Your task to perform on an android device: toggle priority inbox in the gmail app Image 0: 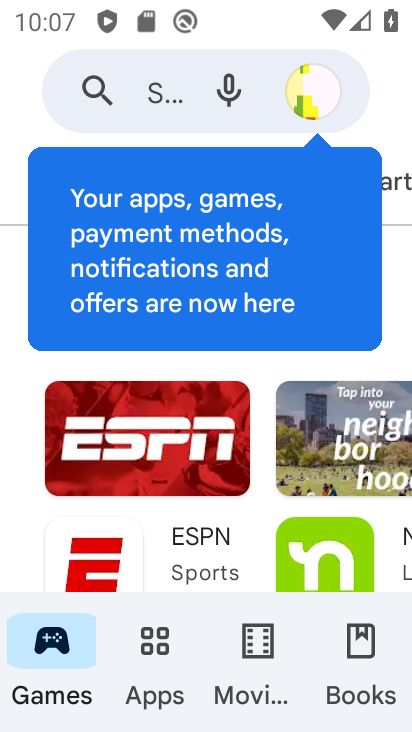
Step 0: press home button
Your task to perform on an android device: toggle priority inbox in the gmail app Image 1: 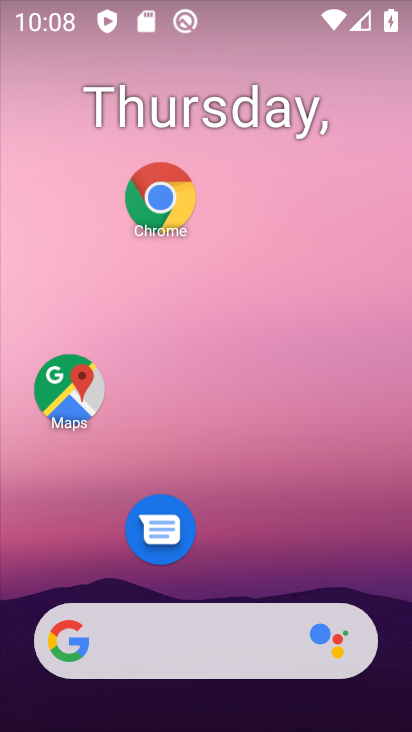
Step 1: drag from (269, 478) to (196, 17)
Your task to perform on an android device: toggle priority inbox in the gmail app Image 2: 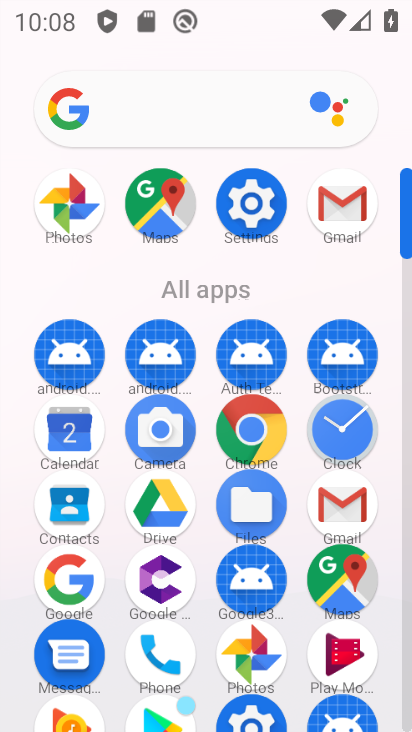
Step 2: click (329, 513)
Your task to perform on an android device: toggle priority inbox in the gmail app Image 3: 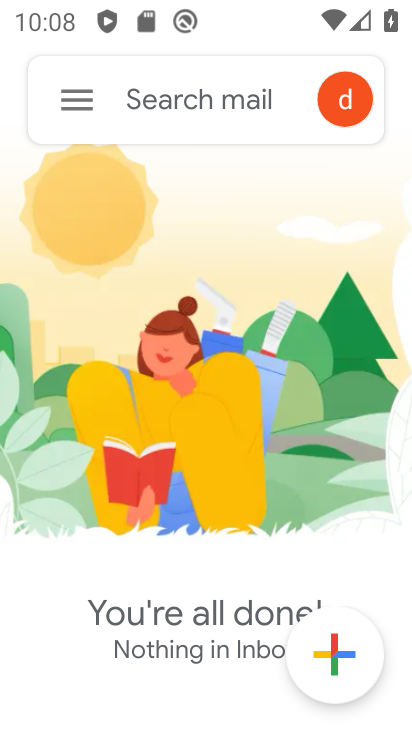
Step 3: click (70, 96)
Your task to perform on an android device: toggle priority inbox in the gmail app Image 4: 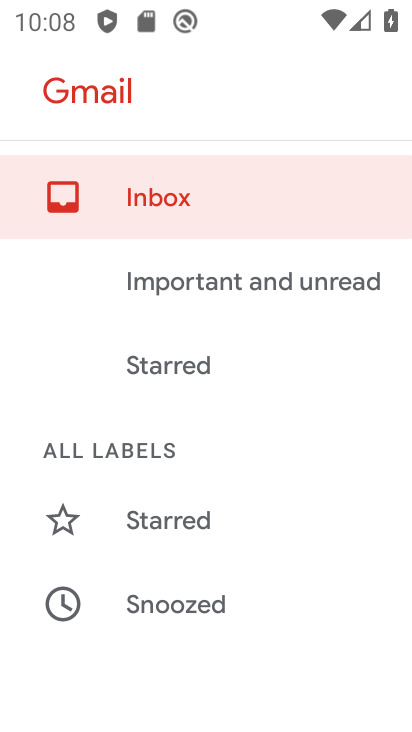
Step 4: drag from (271, 530) to (266, 279)
Your task to perform on an android device: toggle priority inbox in the gmail app Image 5: 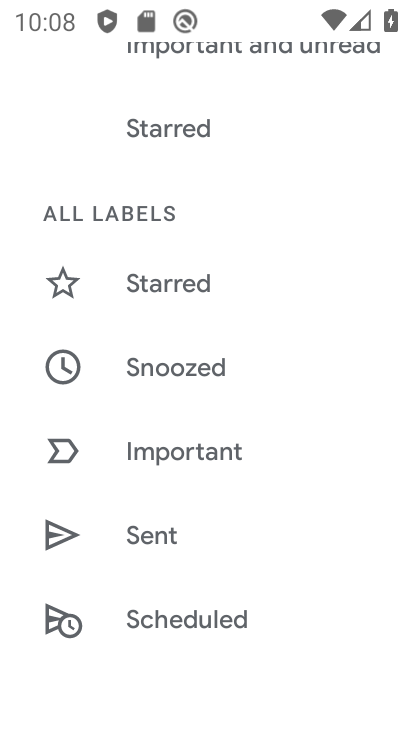
Step 5: drag from (271, 563) to (262, 347)
Your task to perform on an android device: toggle priority inbox in the gmail app Image 6: 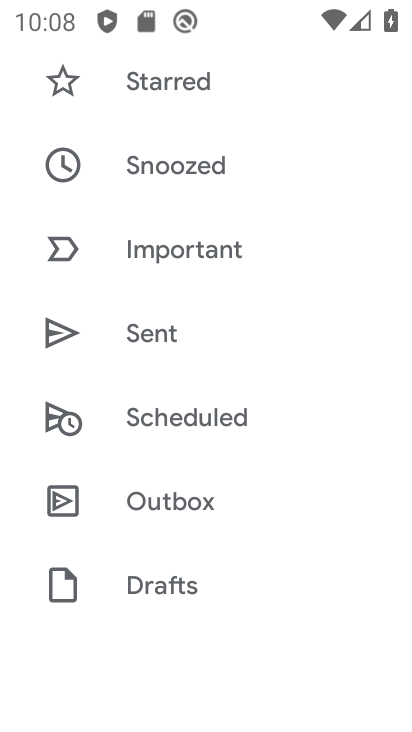
Step 6: drag from (267, 526) to (235, 217)
Your task to perform on an android device: toggle priority inbox in the gmail app Image 7: 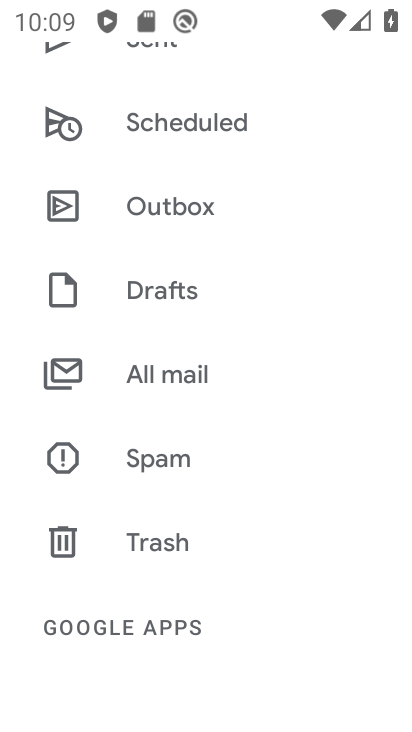
Step 7: drag from (274, 509) to (245, 176)
Your task to perform on an android device: toggle priority inbox in the gmail app Image 8: 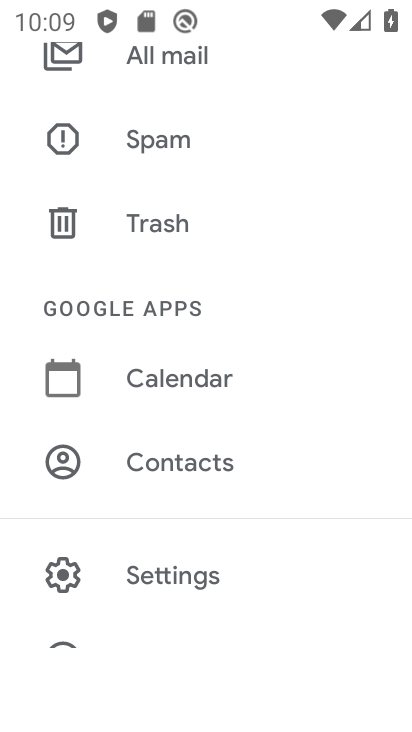
Step 8: click (170, 581)
Your task to perform on an android device: toggle priority inbox in the gmail app Image 9: 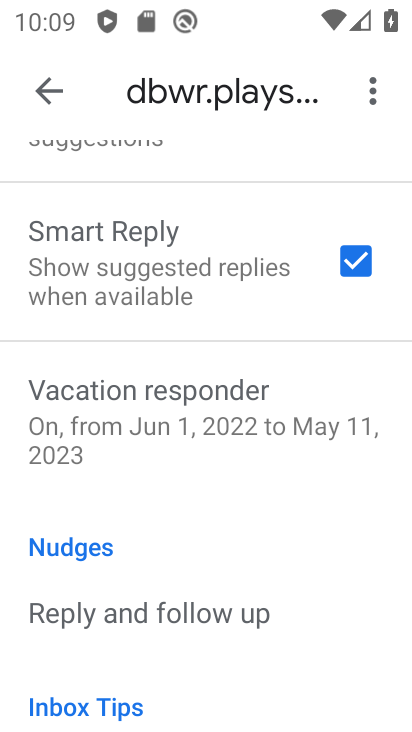
Step 9: drag from (154, 192) to (161, 727)
Your task to perform on an android device: toggle priority inbox in the gmail app Image 10: 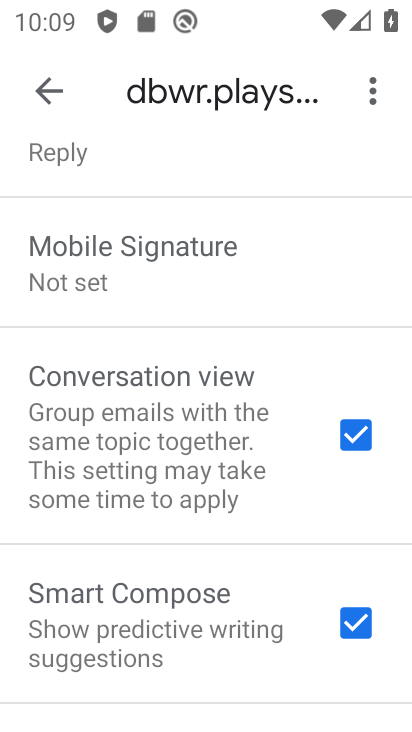
Step 10: drag from (248, 199) to (242, 703)
Your task to perform on an android device: toggle priority inbox in the gmail app Image 11: 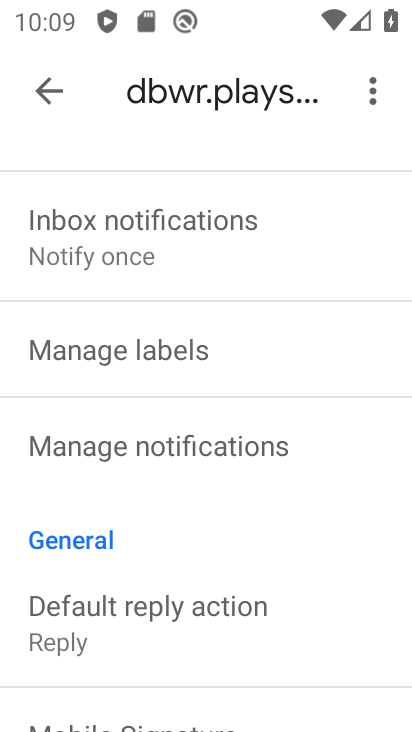
Step 11: drag from (239, 262) to (212, 484)
Your task to perform on an android device: toggle priority inbox in the gmail app Image 12: 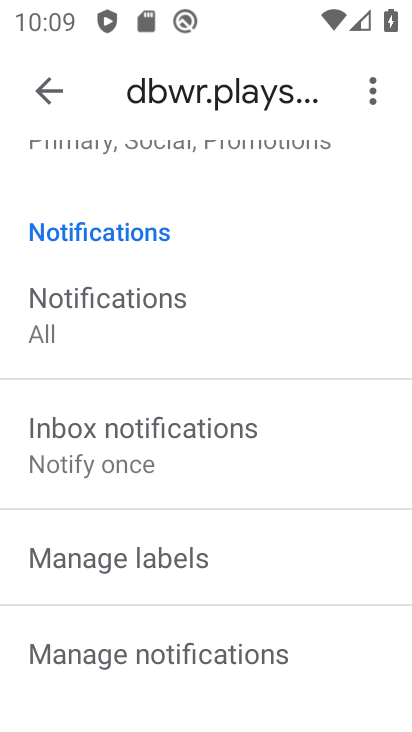
Step 12: drag from (199, 247) to (202, 553)
Your task to perform on an android device: toggle priority inbox in the gmail app Image 13: 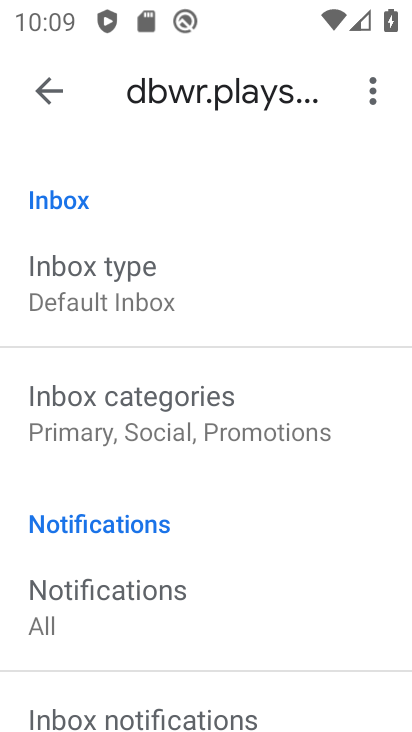
Step 13: click (98, 273)
Your task to perform on an android device: toggle priority inbox in the gmail app Image 14: 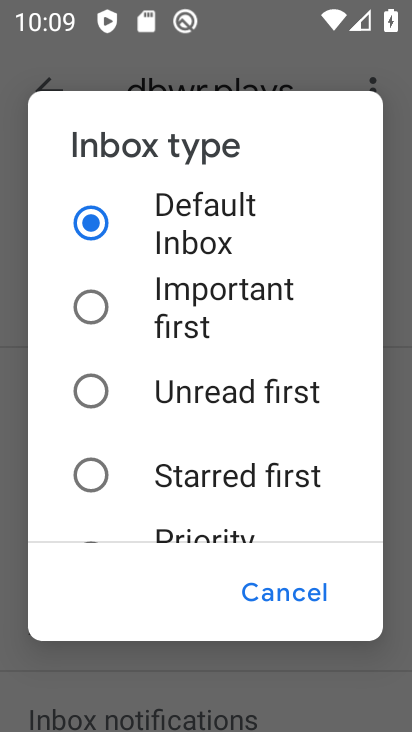
Step 14: drag from (119, 433) to (114, 192)
Your task to perform on an android device: toggle priority inbox in the gmail app Image 15: 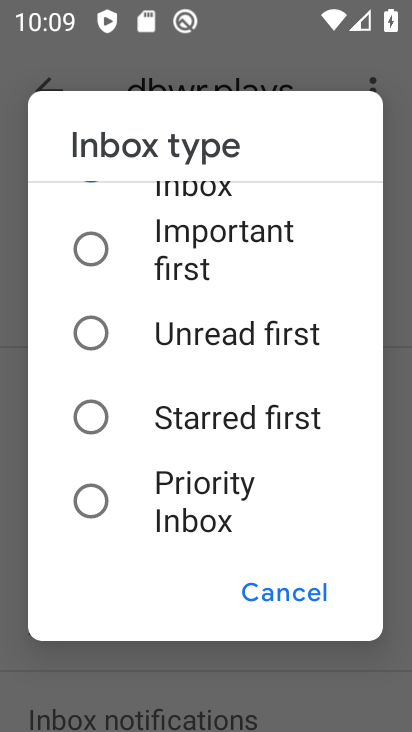
Step 15: click (92, 503)
Your task to perform on an android device: toggle priority inbox in the gmail app Image 16: 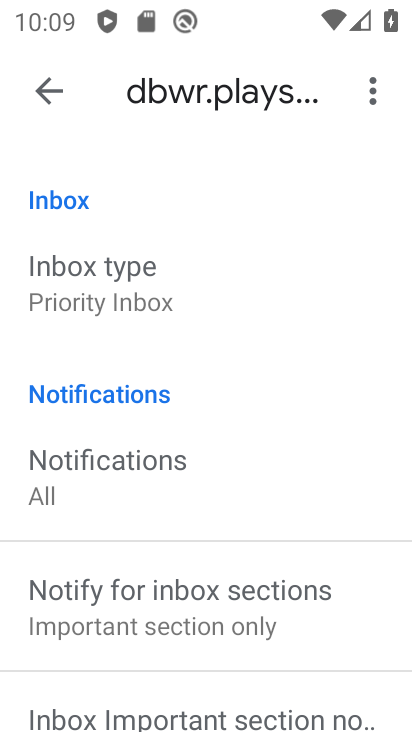
Step 16: task complete